Your task to perform on an android device: check battery use Image 0: 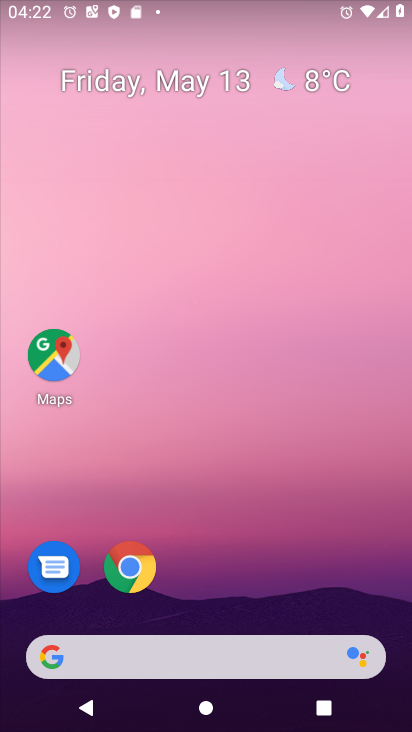
Step 0: drag from (299, 610) to (320, 13)
Your task to perform on an android device: check battery use Image 1: 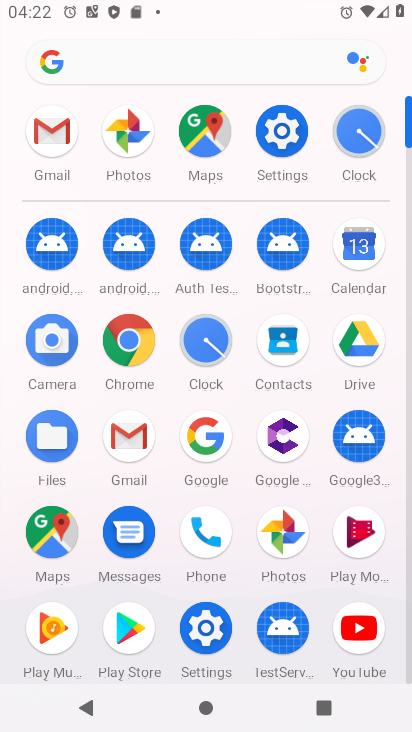
Step 1: click (285, 138)
Your task to perform on an android device: check battery use Image 2: 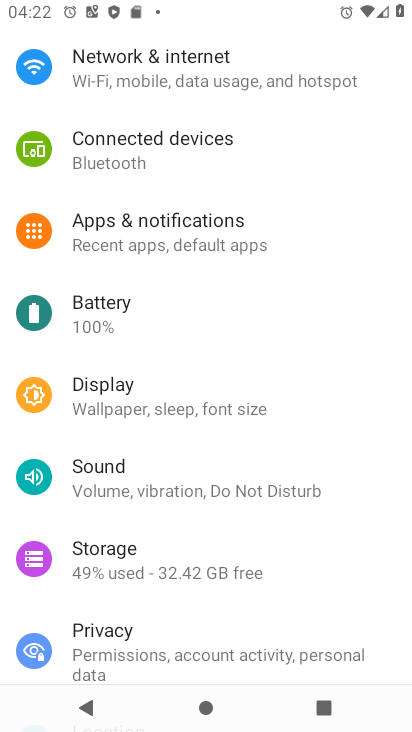
Step 2: click (96, 313)
Your task to perform on an android device: check battery use Image 3: 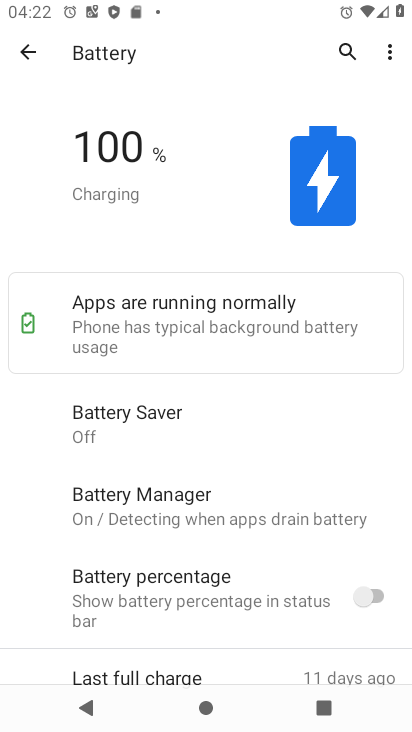
Step 3: click (390, 54)
Your task to perform on an android device: check battery use Image 4: 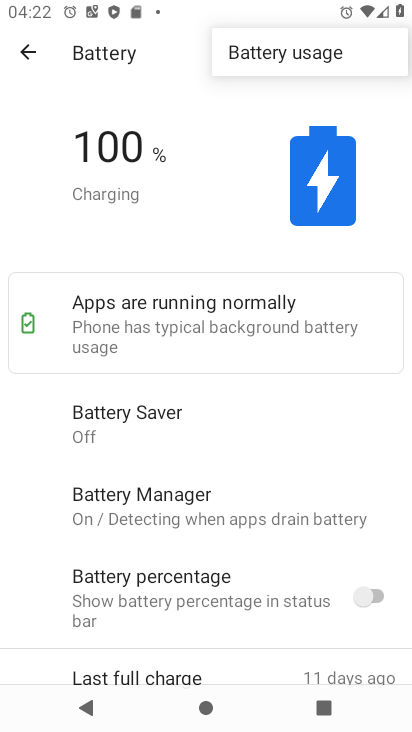
Step 4: click (333, 60)
Your task to perform on an android device: check battery use Image 5: 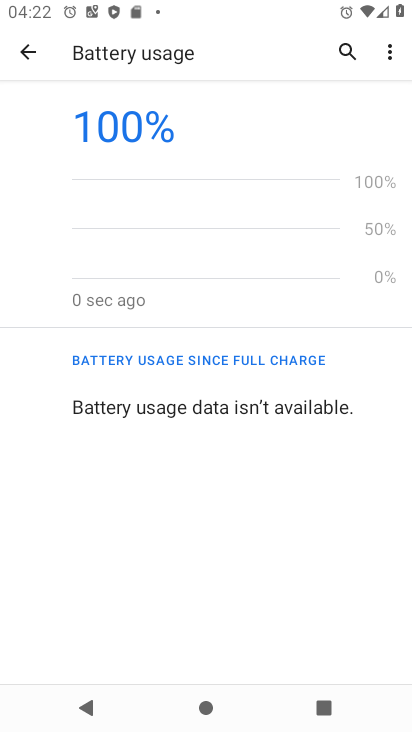
Step 5: task complete